Your task to perform on an android device: View the shopping cart on costco. Search for "energizer triple a" on costco, select the first entry, add it to the cart, then select checkout. Image 0: 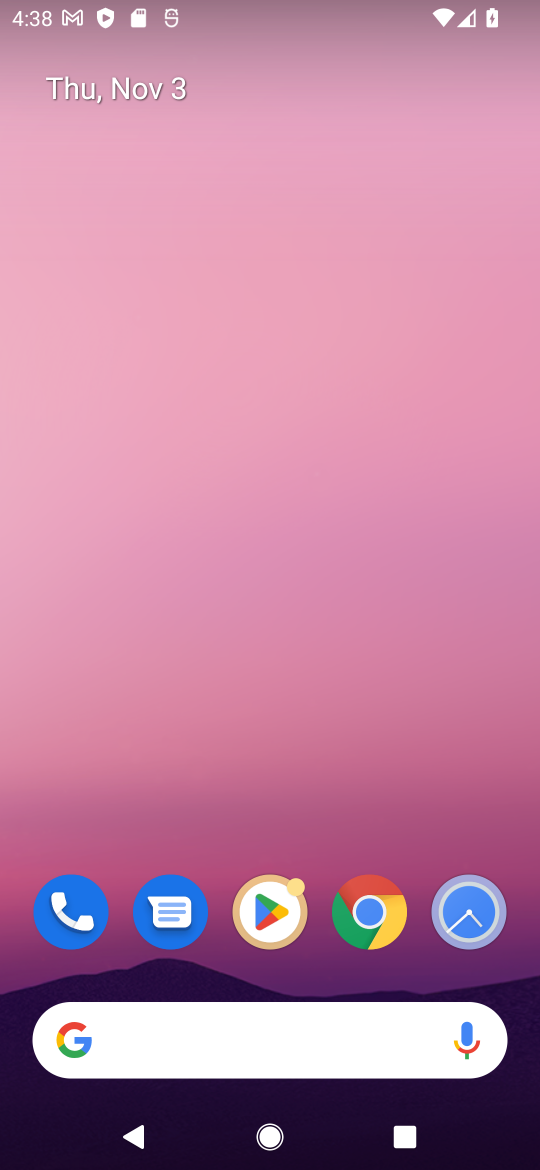
Step 0: drag from (222, 974) to (329, 312)
Your task to perform on an android device: View the shopping cart on costco. Search for "energizer triple a" on costco, select the first entry, add it to the cart, then select checkout. Image 1: 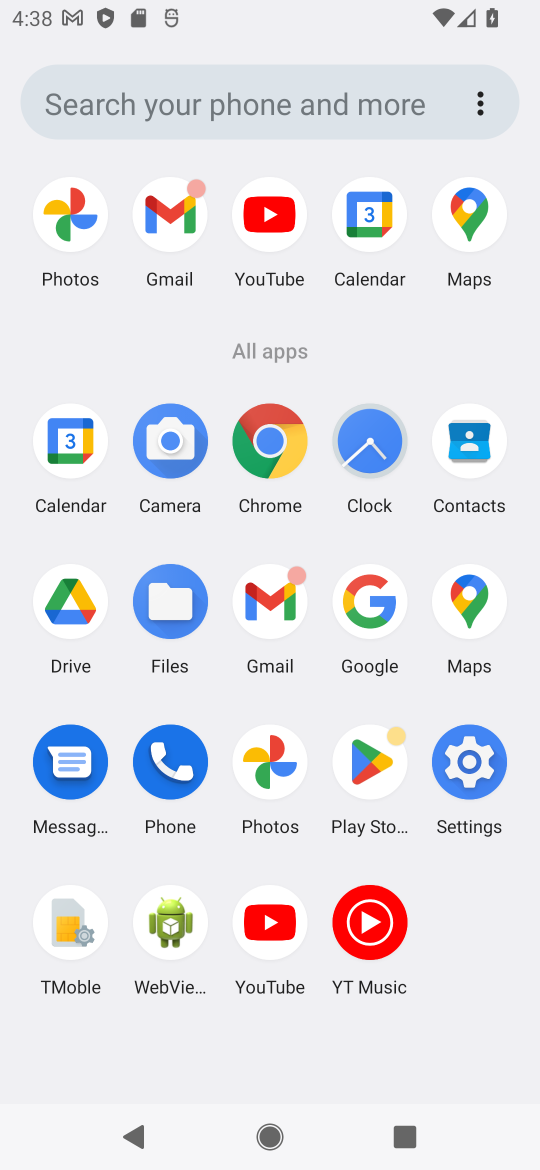
Step 1: click (279, 458)
Your task to perform on an android device: View the shopping cart on costco. Search for "energizer triple a" on costco, select the first entry, add it to the cart, then select checkout. Image 2: 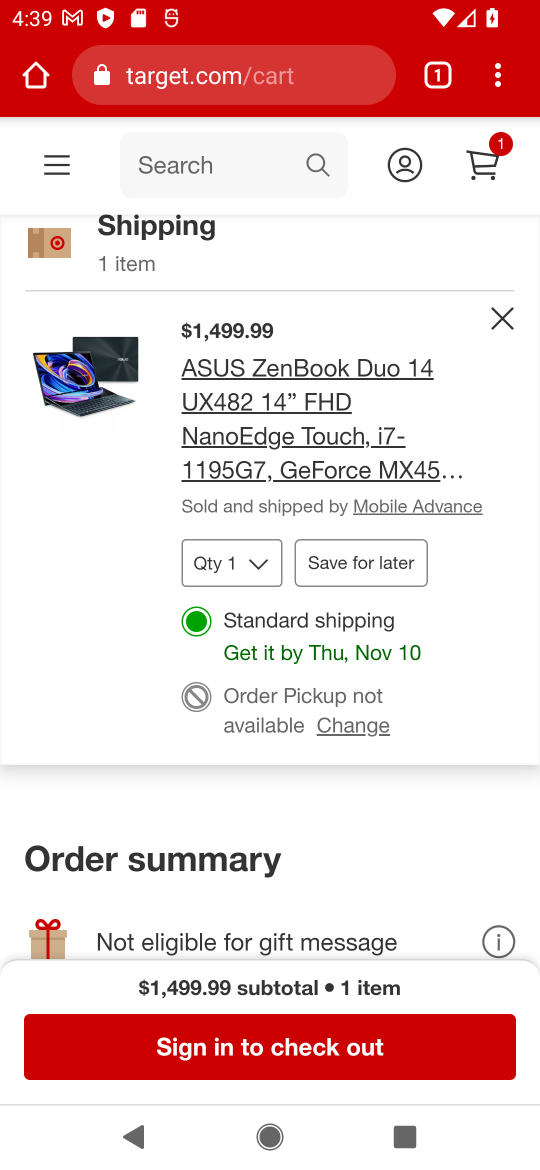
Step 2: click (435, 75)
Your task to perform on an android device: View the shopping cart on costco. Search for "energizer triple a" on costco, select the first entry, add it to the cart, then select checkout. Image 3: 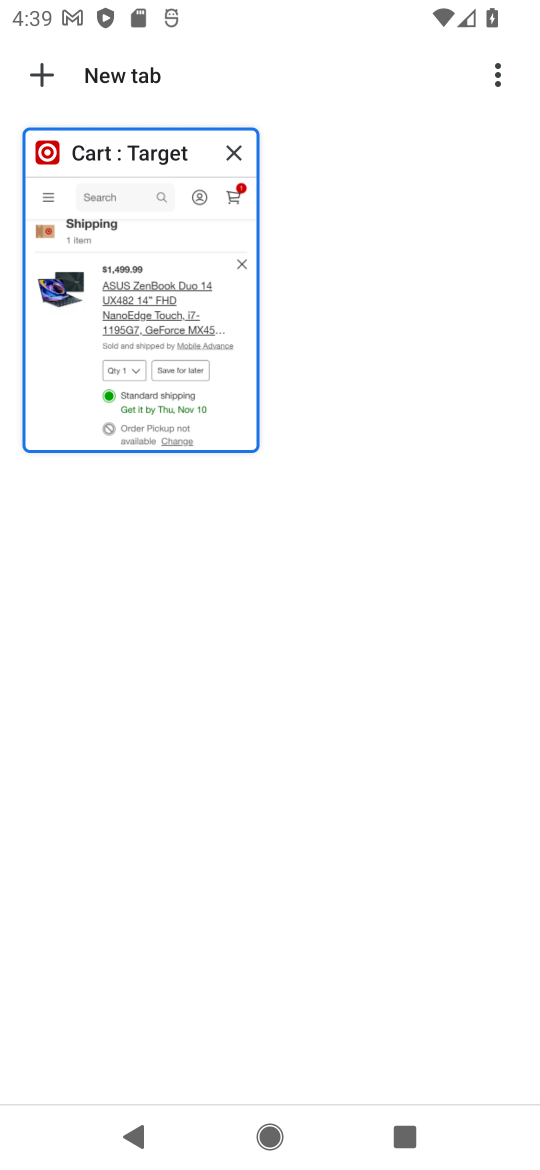
Step 3: click (40, 59)
Your task to perform on an android device: View the shopping cart on costco. Search for "energizer triple a" on costco, select the first entry, add it to the cart, then select checkout. Image 4: 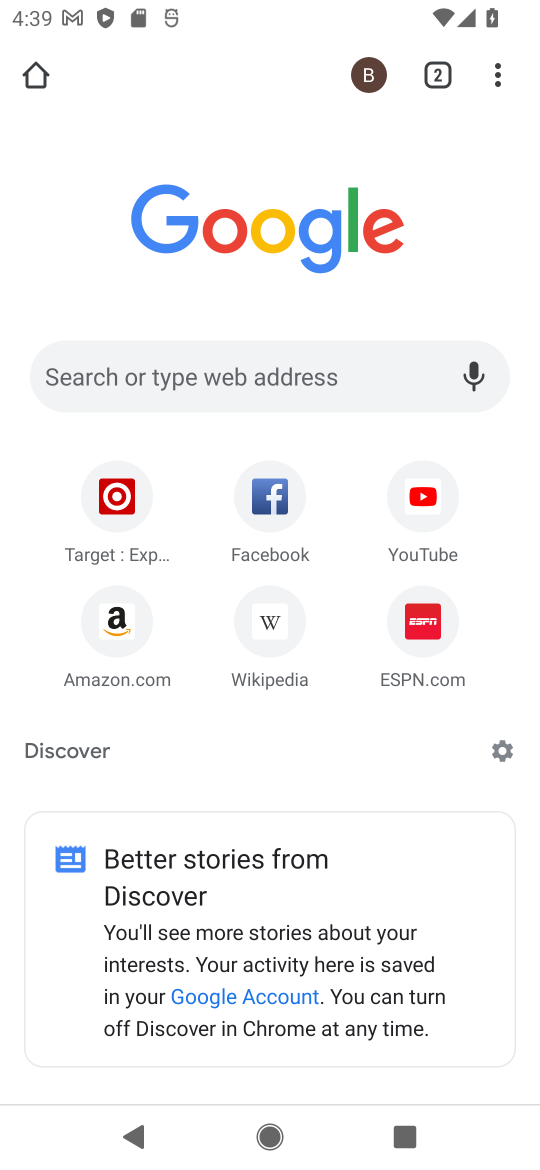
Step 4: click (204, 384)
Your task to perform on an android device: View the shopping cart on costco. Search for "energizer triple a" on costco, select the first entry, add it to the cart, then select checkout. Image 5: 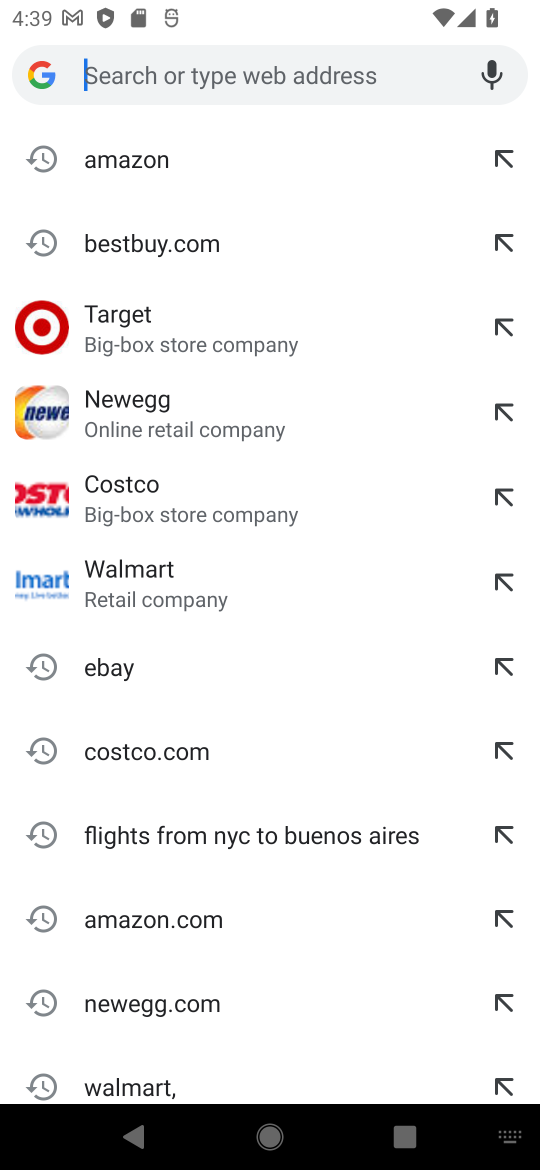
Step 5: click (215, 505)
Your task to perform on an android device: View the shopping cart on costco. Search for "energizer triple a" on costco, select the first entry, add it to the cart, then select checkout. Image 6: 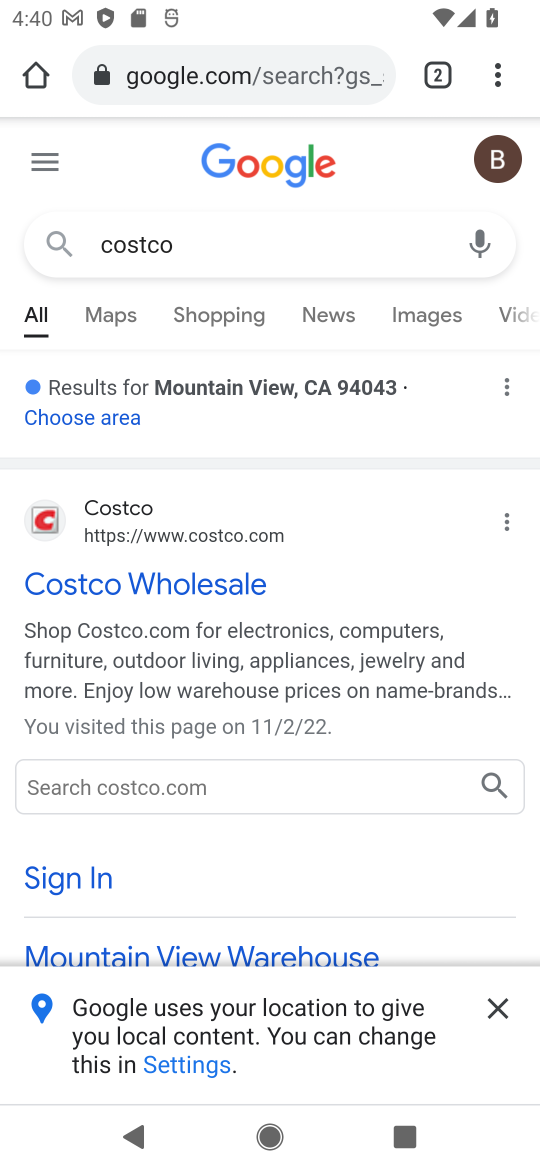
Step 6: click (155, 571)
Your task to perform on an android device: View the shopping cart on costco. Search for "energizer triple a" on costco, select the first entry, add it to the cart, then select checkout. Image 7: 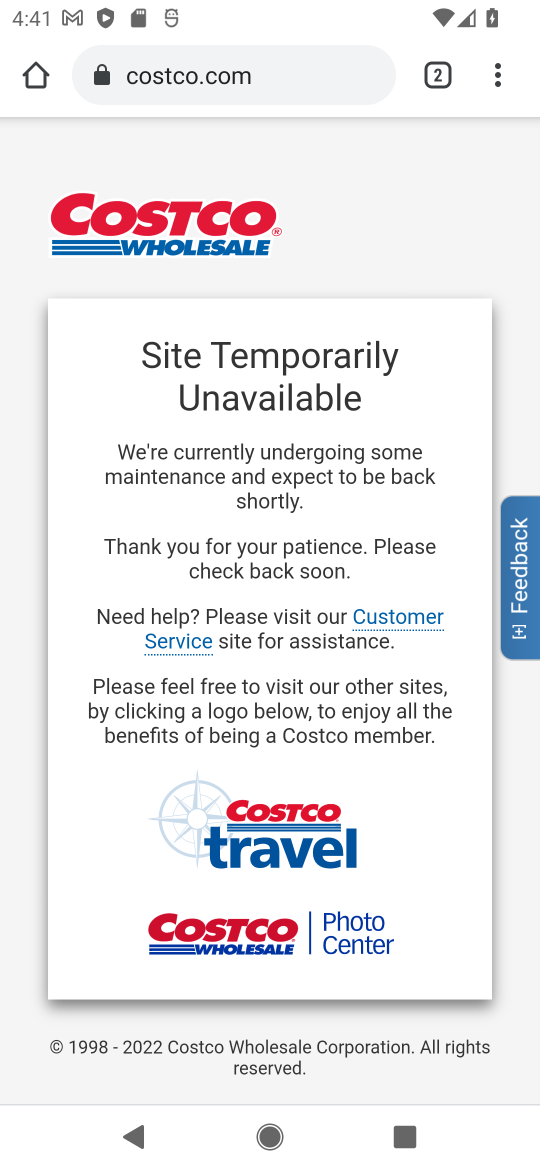
Step 7: task complete